Your task to perform on an android device: turn notification dots on Image 0: 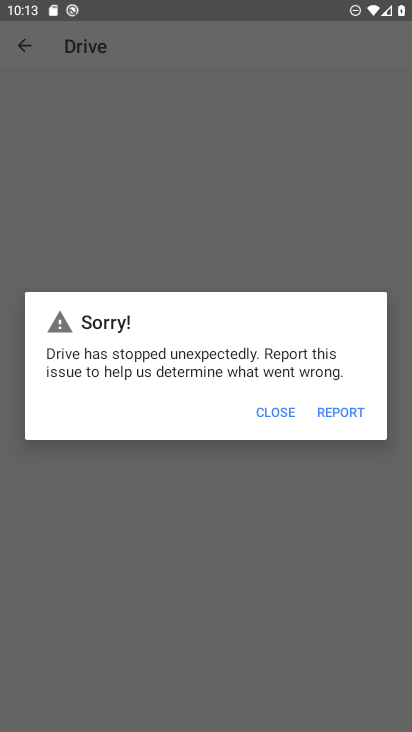
Step 0: press home button
Your task to perform on an android device: turn notification dots on Image 1: 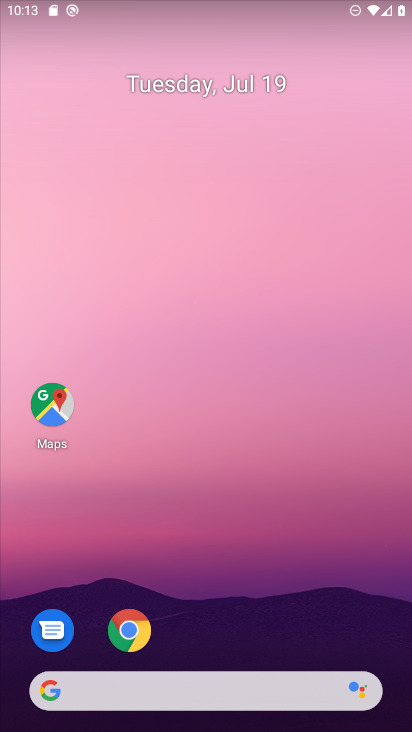
Step 1: drag from (5, 569) to (155, 170)
Your task to perform on an android device: turn notification dots on Image 2: 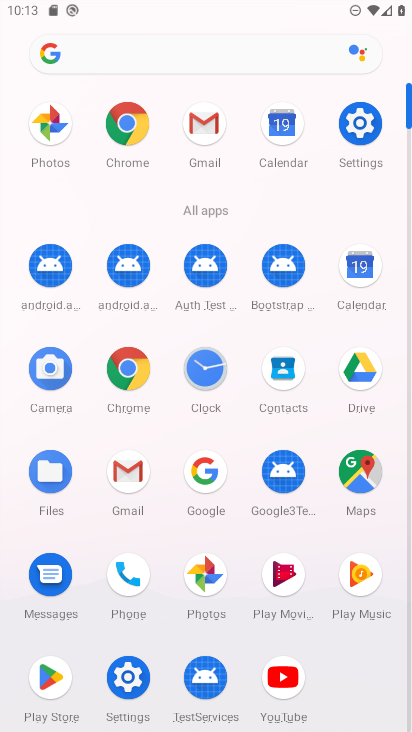
Step 2: click (130, 673)
Your task to perform on an android device: turn notification dots on Image 3: 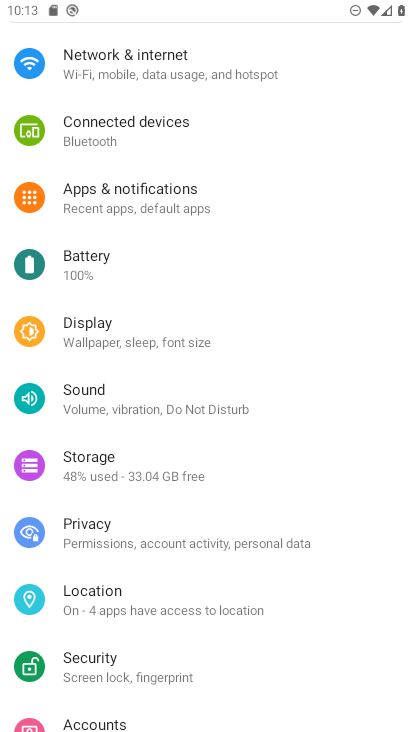
Step 3: click (150, 203)
Your task to perform on an android device: turn notification dots on Image 4: 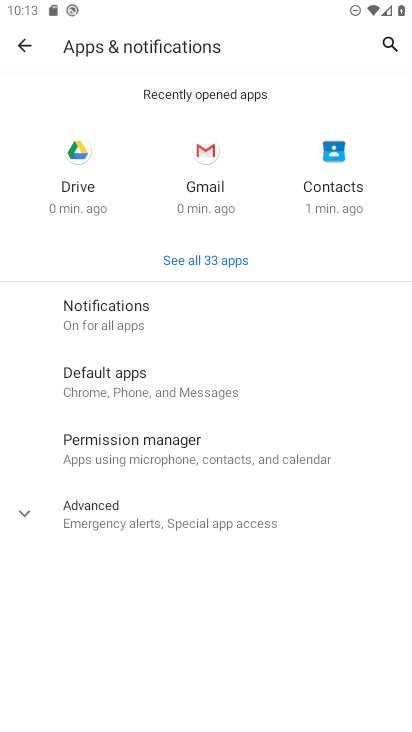
Step 4: click (104, 515)
Your task to perform on an android device: turn notification dots on Image 5: 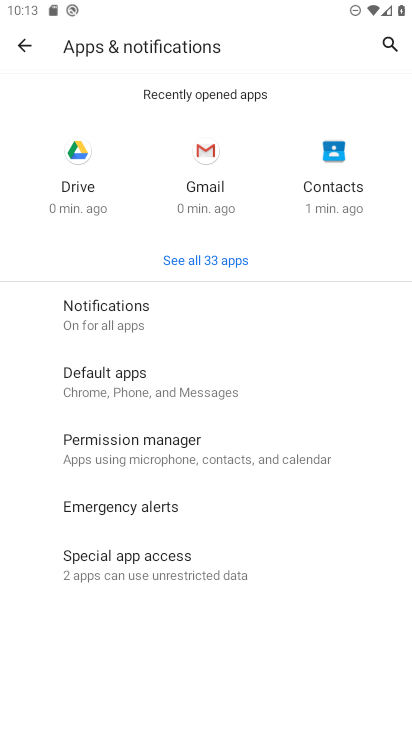
Step 5: click (135, 309)
Your task to perform on an android device: turn notification dots on Image 6: 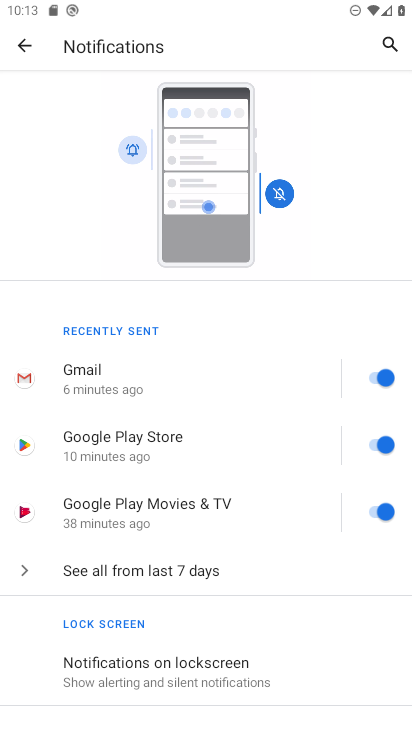
Step 6: drag from (214, 672) to (215, 452)
Your task to perform on an android device: turn notification dots on Image 7: 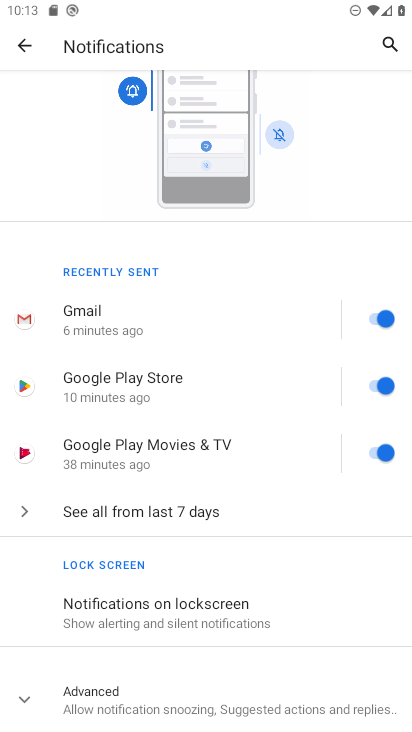
Step 7: click (137, 690)
Your task to perform on an android device: turn notification dots on Image 8: 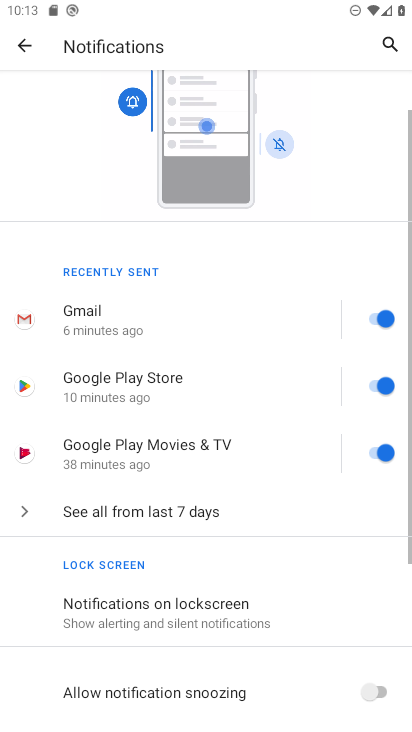
Step 8: task complete